Your task to perform on an android device: turn smart compose on in the gmail app Image 0: 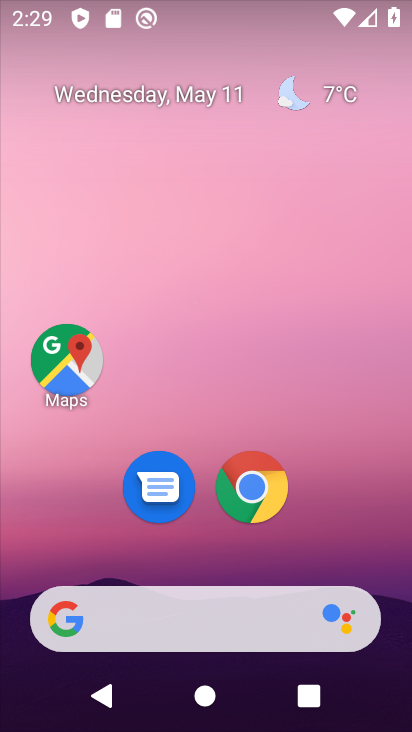
Step 0: drag from (207, 523) to (288, 19)
Your task to perform on an android device: turn smart compose on in the gmail app Image 1: 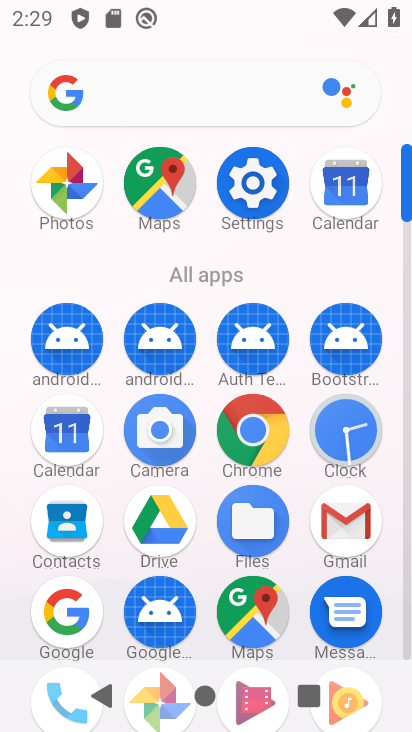
Step 1: click (334, 517)
Your task to perform on an android device: turn smart compose on in the gmail app Image 2: 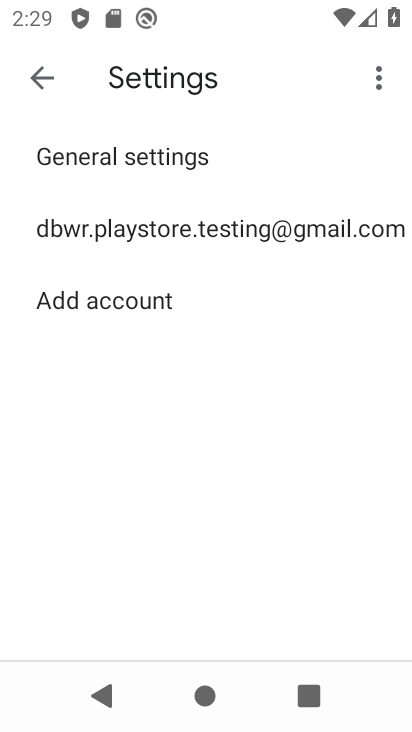
Step 2: click (37, 73)
Your task to perform on an android device: turn smart compose on in the gmail app Image 3: 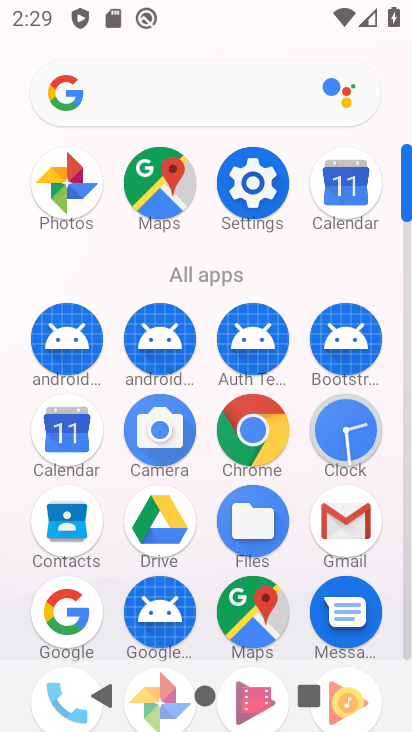
Step 3: click (336, 522)
Your task to perform on an android device: turn smart compose on in the gmail app Image 4: 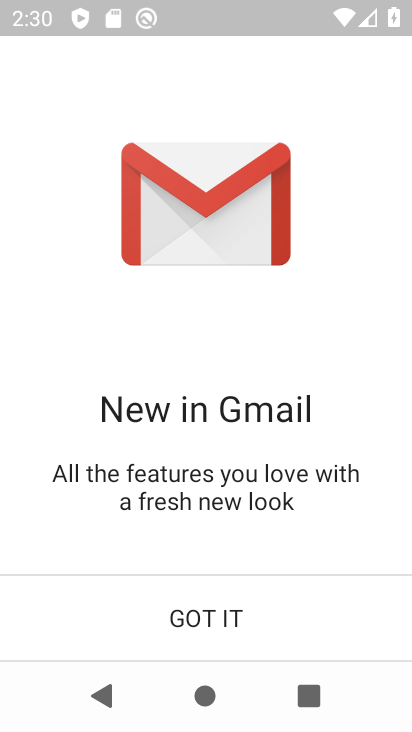
Step 4: click (210, 624)
Your task to perform on an android device: turn smart compose on in the gmail app Image 5: 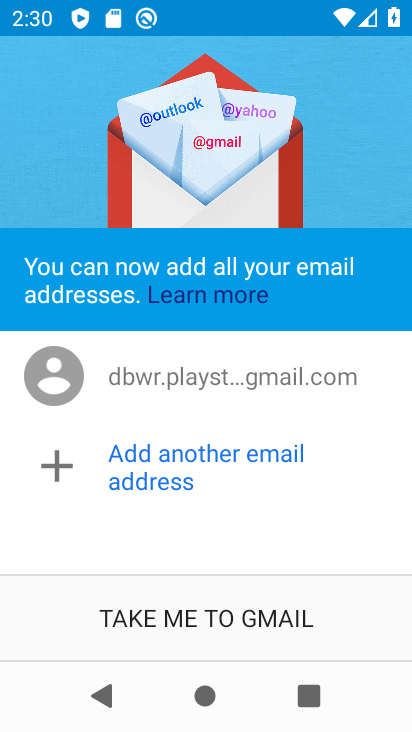
Step 5: click (210, 620)
Your task to perform on an android device: turn smart compose on in the gmail app Image 6: 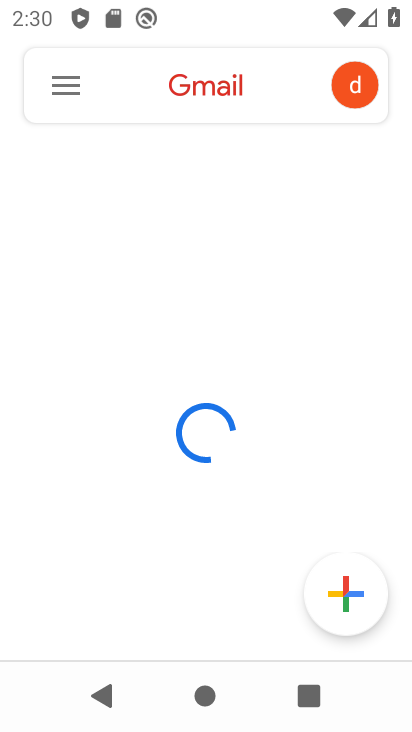
Step 6: click (56, 89)
Your task to perform on an android device: turn smart compose on in the gmail app Image 7: 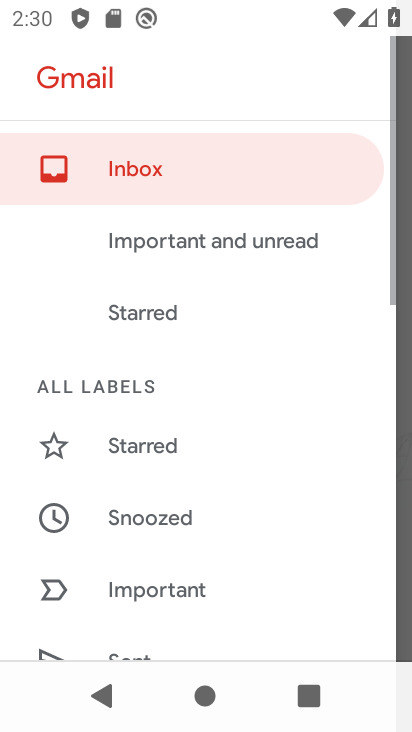
Step 7: click (183, 382)
Your task to perform on an android device: turn smart compose on in the gmail app Image 8: 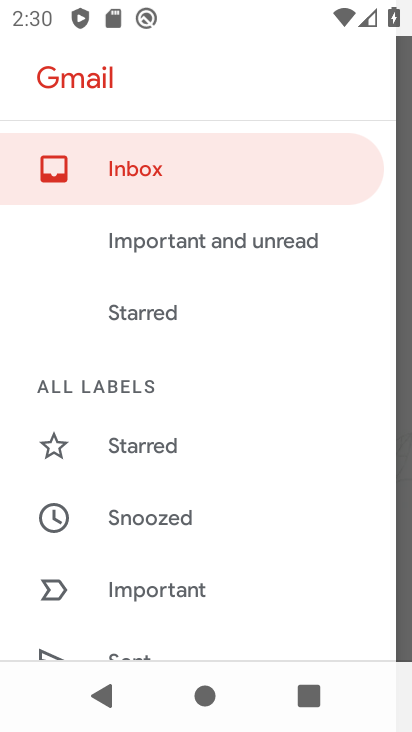
Step 8: drag from (152, 572) to (271, 133)
Your task to perform on an android device: turn smart compose on in the gmail app Image 9: 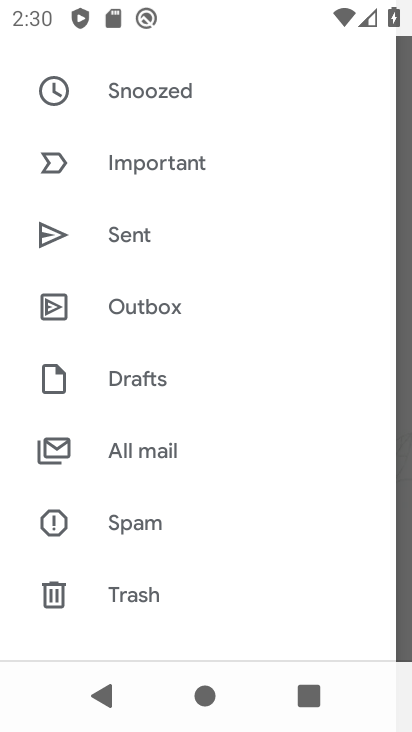
Step 9: drag from (173, 583) to (301, 64)
Your task to perform on an android device: turn smart compose on in the gmail app Image 10: 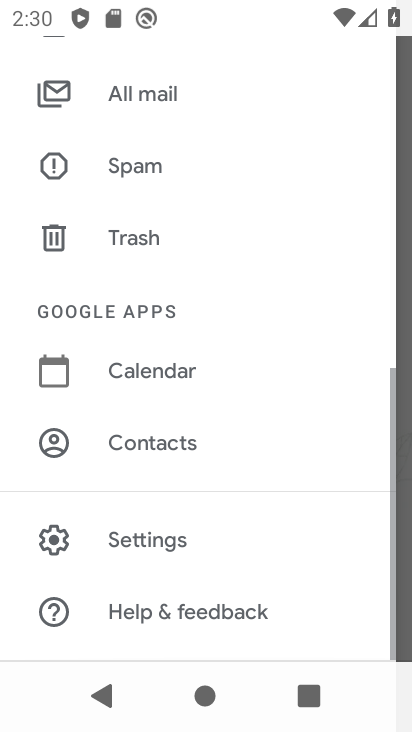
Step 10: click (94, 530)
Your task to perform on an android device: turn smart compose on in the gmail app Image 11: 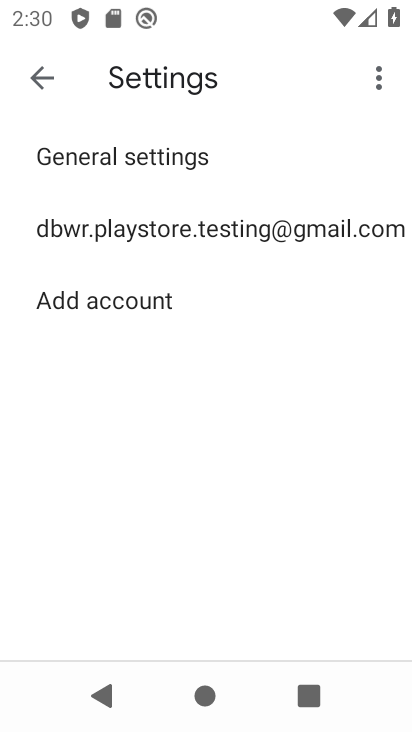
Step 11: click (145, 218)
Your task to perform on an android device: turn smart compose on in the gmail app Image 12: 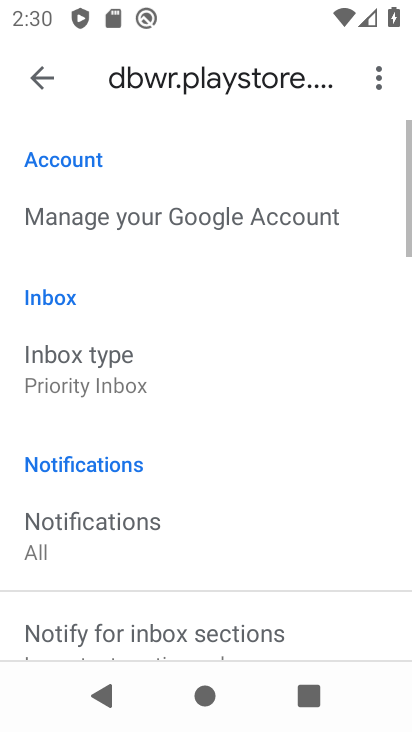
Step 12: task complete